Your task to perform on an android device: When is my next appointment? Image 0: 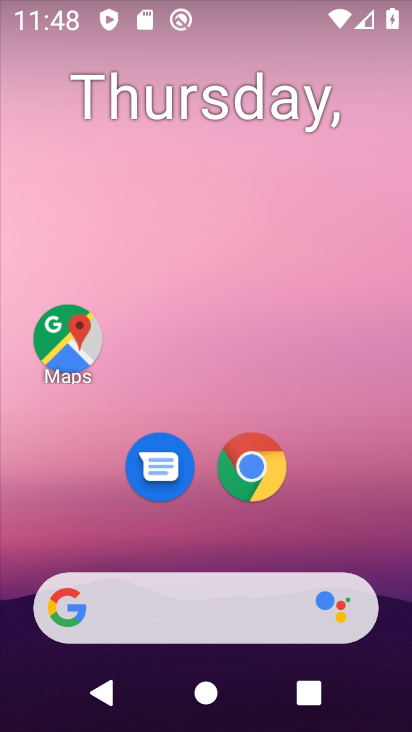
Step 0: drag from (396, 587) to (323, 79)
Your task to perform on an android device: When is my next appointment? Image 1: 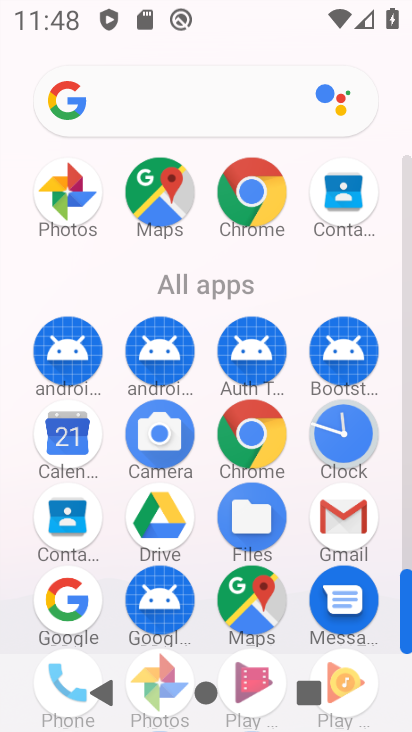
Step 1: drag from (402, 596) to (393, 654)
Your task to perform on an android device: When is my next appointment? Image 2: 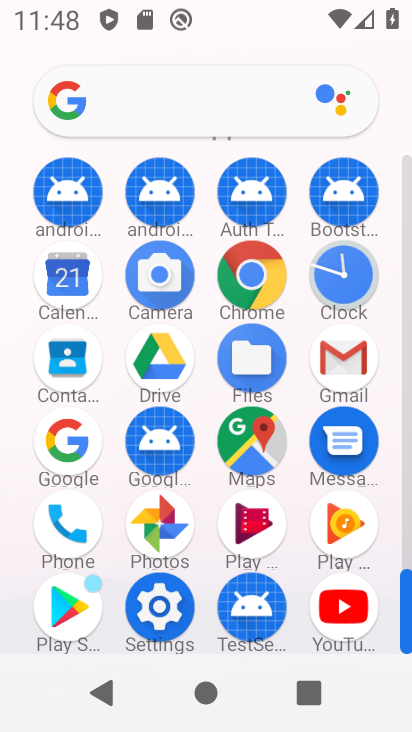
Step 2: click (61, 269)
Your task to perform on an android device: When is my next appointment? Image 3: 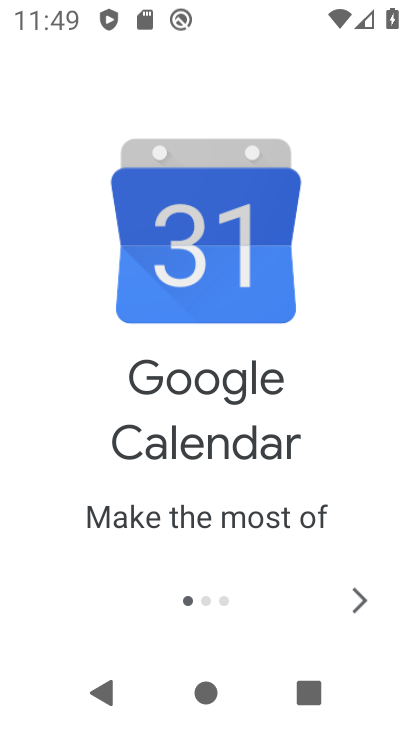
Step 3: click (361, 599)
Your task to perform on an android device: When is my next appointment? Image 4: 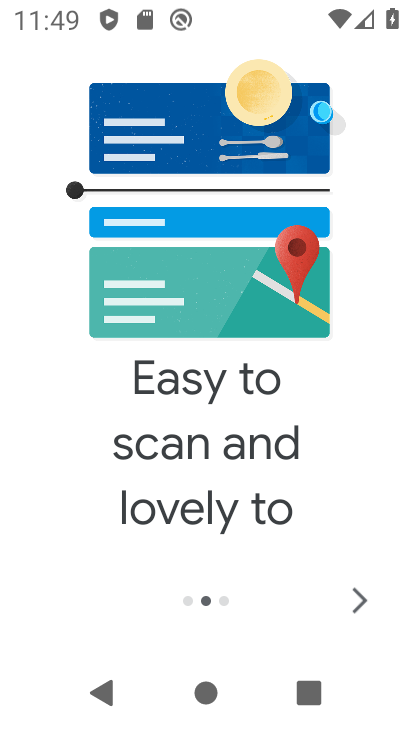
Step 4: click (361, 599)
Your task to perform on an android device: When is my next appointment? Image 5: 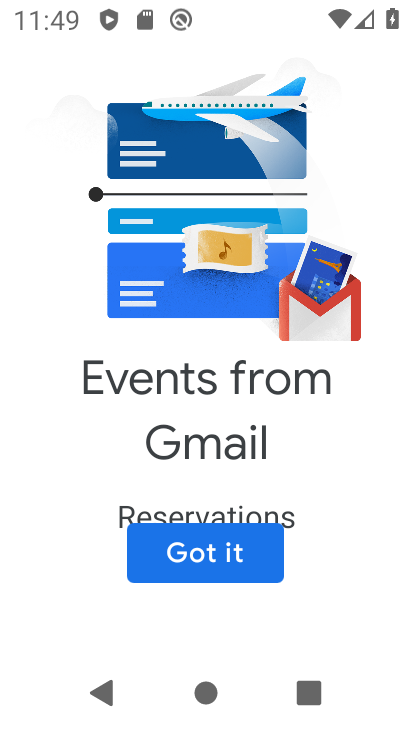
Step 5: click (193, 552)
Your task to perform on an android device: When is my next appointment? Image 6: 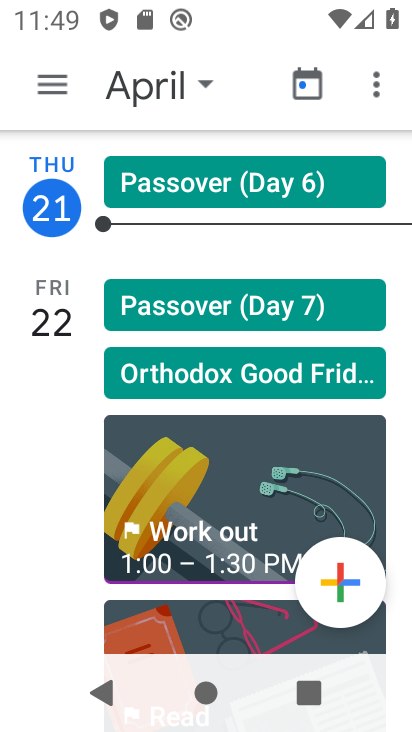
Step 6: click (55, 86)
Your task to perform on an android device: When is my next appointment? Image 7: 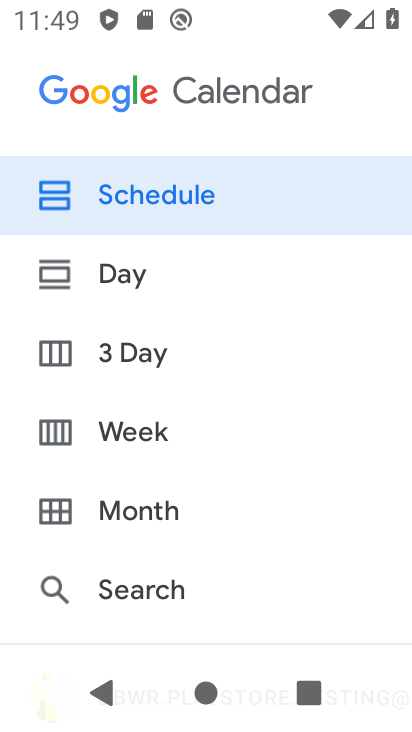
Step 7: click (183, 186)
Your task to perform on an android device: When is my next appointment? Image 8: 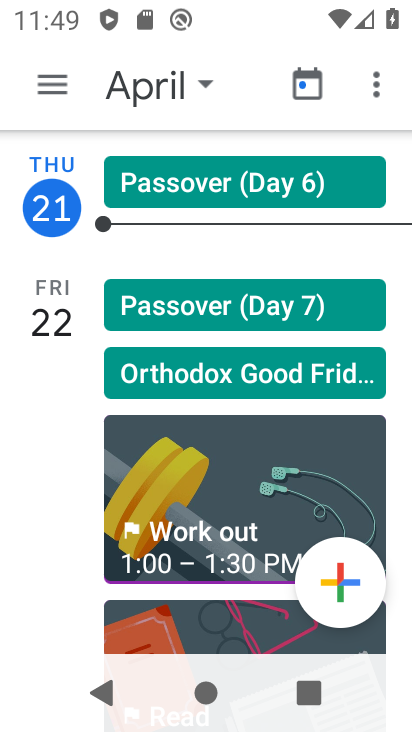
Step 8: task complete